Your task to perform on an android device: Search for Mexican restaurants on Maps Image 0: 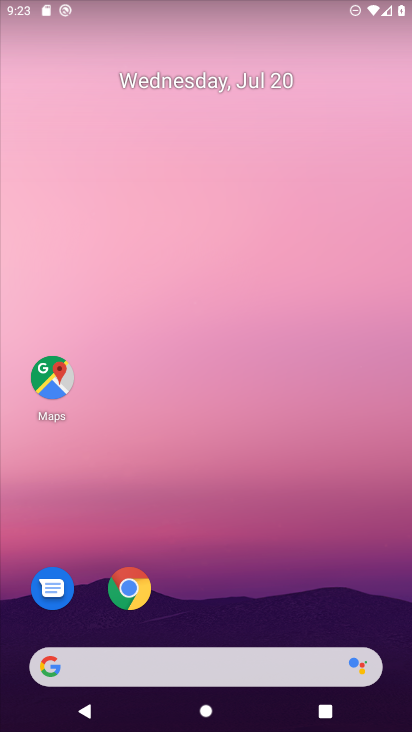
Step 0: click (52, 390)
Your task to perform on an android device: Search for Mexican restaurants on Maps Image 1: 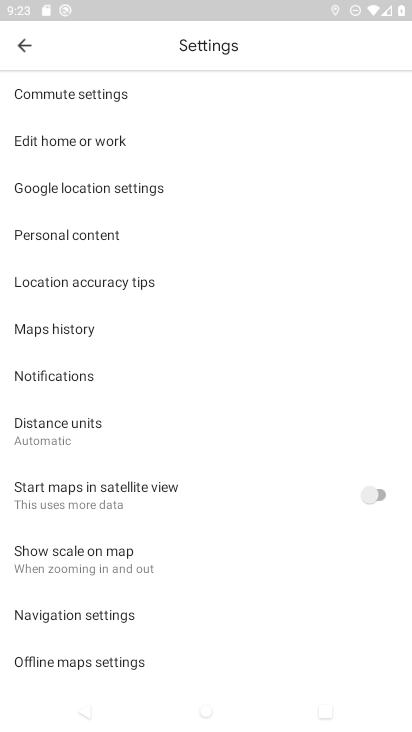
Step 1: click (39, 48)
Your task to perform on an android device: Search for Mexican restaurants on Maps Image 2: 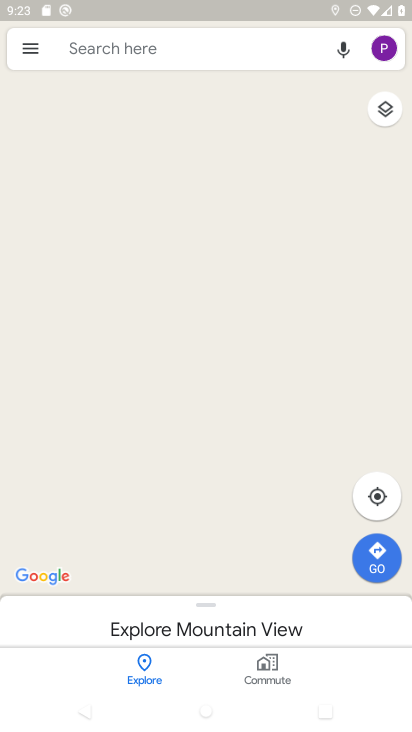
Step 2: click (128, 57)
Your task to perform on an android device: Search for Mexican restaurants on Maps Image 3: 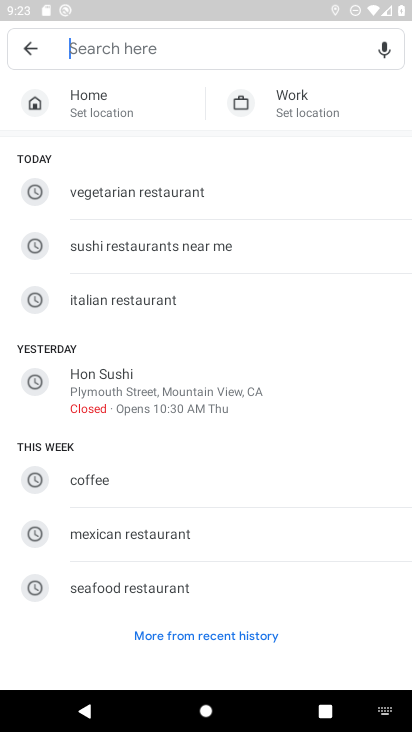
Step 3: click (167, 542)
Your task to perform on an android device: Search for Mexican restaurants on Maps Image 4: 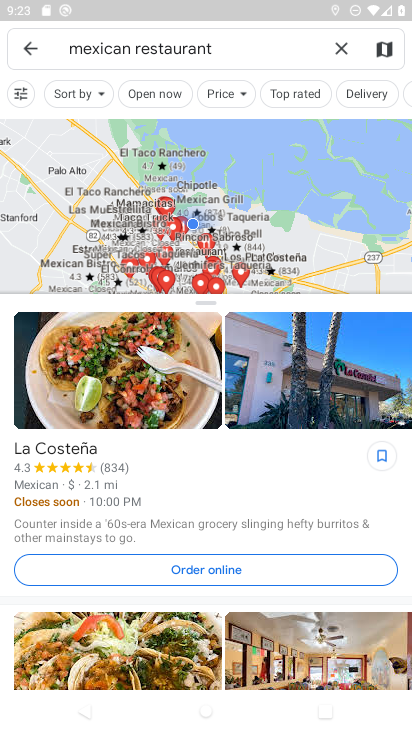
Step 4: task complete